Your task to perform on an android device: Do I have any events this weekend? Image 0: 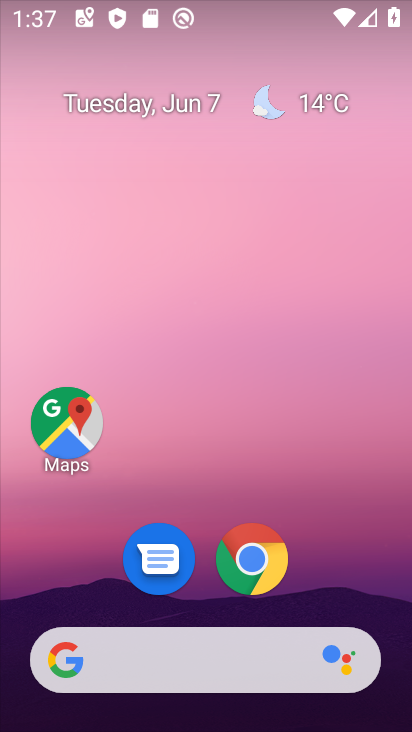
Step 0: drag from (351, 576) to (174, 38)
Your task to perform on an android device: Do I have any events this weekend? Image 1: 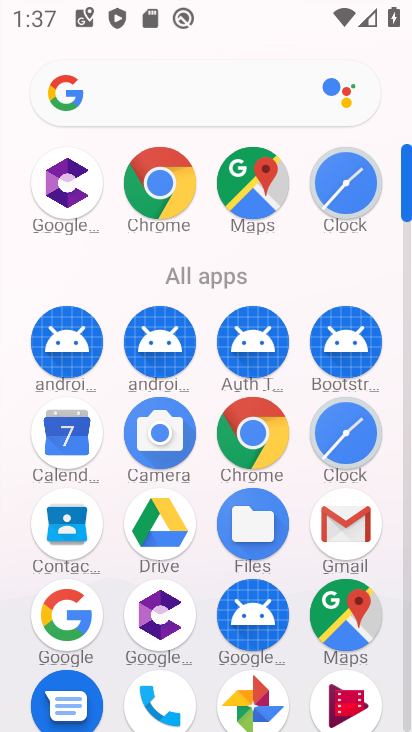
Step 1: drag from (14, 607) to (21, 275)
Your task to perform on an android device: Do I have any events this weekend? Image 2: 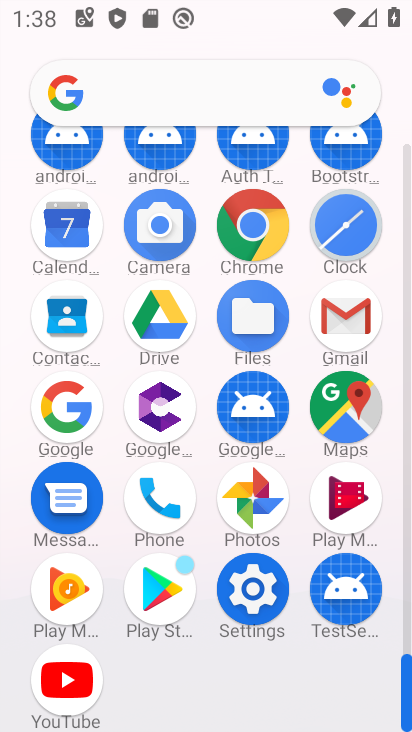
Step 2: drag from (23, 175) to (25, 429)
Your task to perform on an android device: Do I have any events this weekend? Image 3: 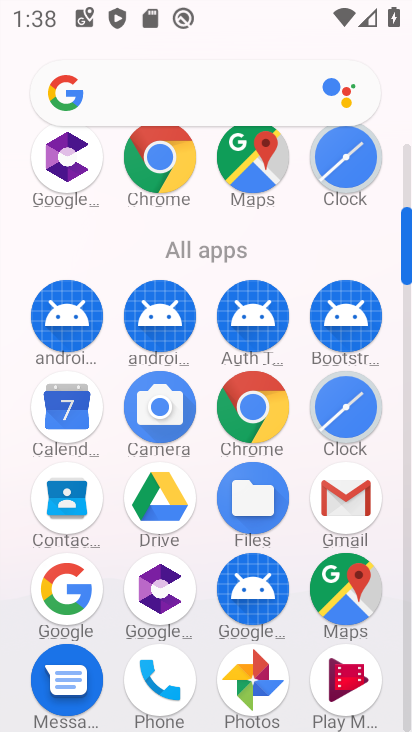
Step 3: click (67, 404)
Your task to perform on an android device: Do I have any events this weekend? Image 4: 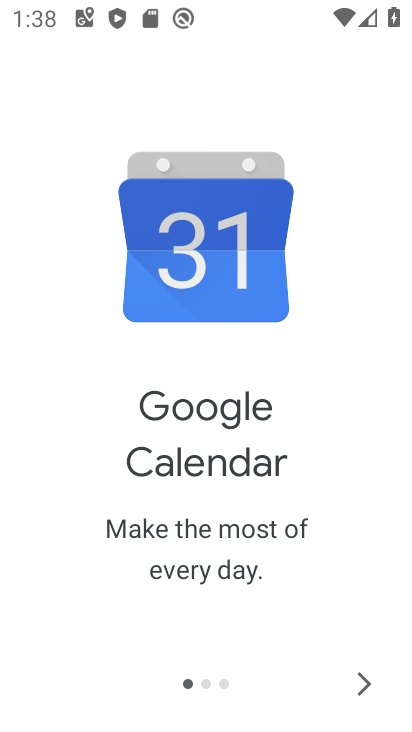
Step 4: click (381, 674)
Your task to perform on an android device: Do I have any events this weekend? Image 5: 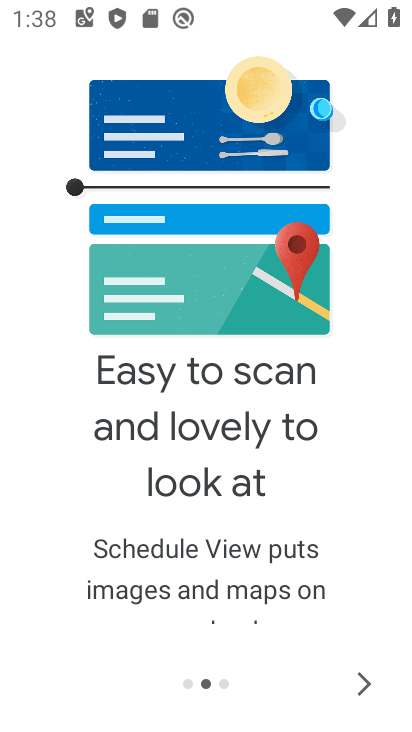
Step 5: click (361, 677)
Your task to perform on an android device: Do I have any events this weekend? Image 6: 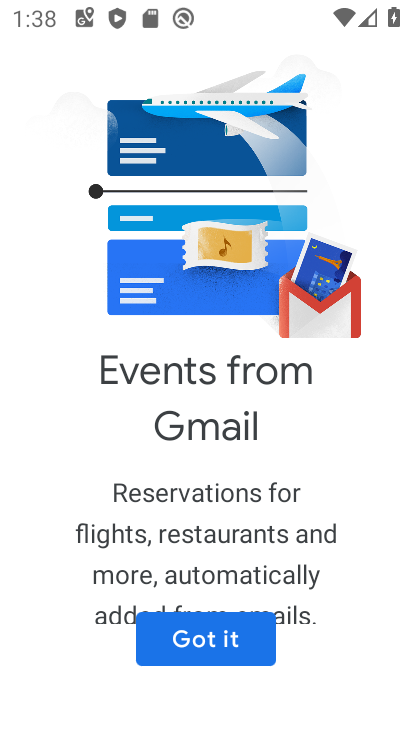
Step 6: click (207, 623)
Your task to perform on an android device: Do I have any events this weekend? Image 7: 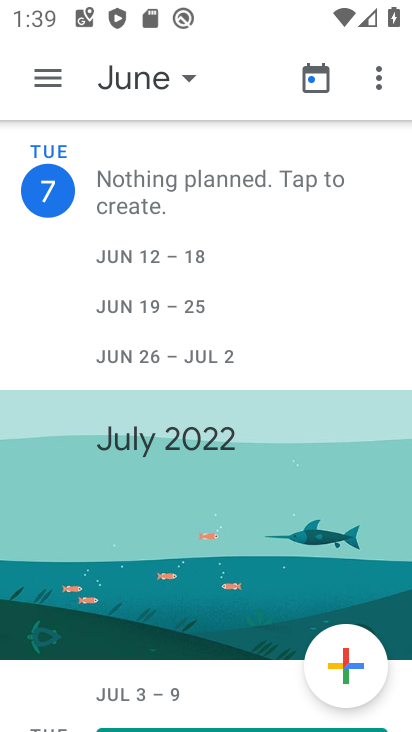
Step 7: click (58, 83)
Your task to perform on an android device: Do I have any events this weekend? Image 8: 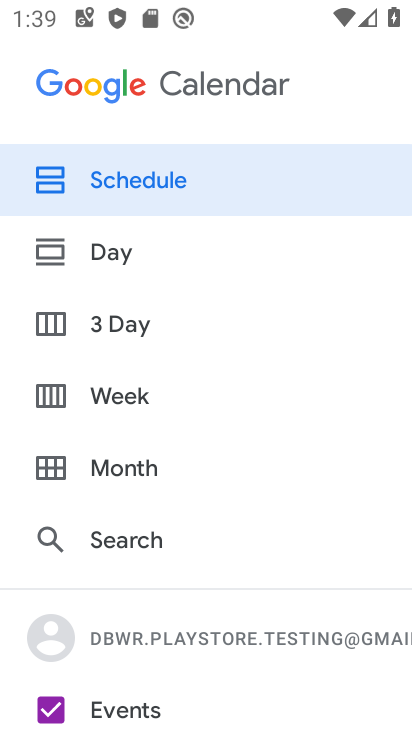
Step 8: click (122, 386)
Your task to perform on an android device: Do I have any events this weekend? Image 9: 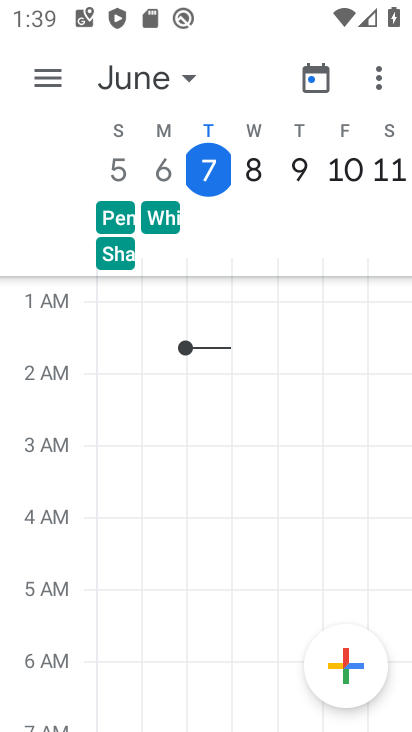
Step 9: task complete